Your task to perform on an android device: Go to calendar. Show me events next week Image 0: 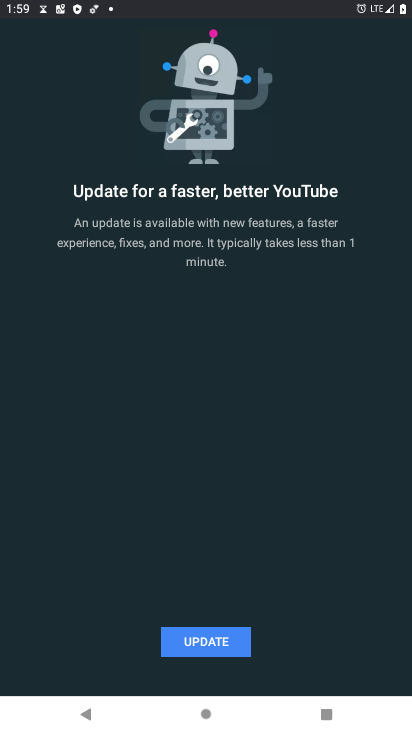
Step 0: press home button
Your task to perform on an android device: Go to calendar. Show me events next week Image 1: 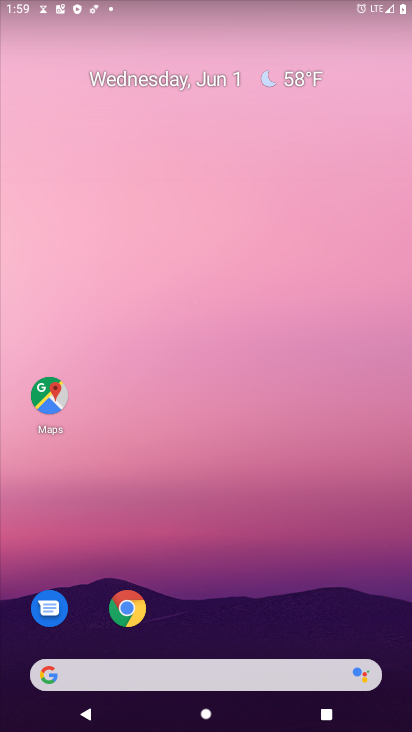
Step 1: drag from (199, 613) to (266, 242)
Your task to perform on an android device: Go to calendar. Show me events next week Image 2: 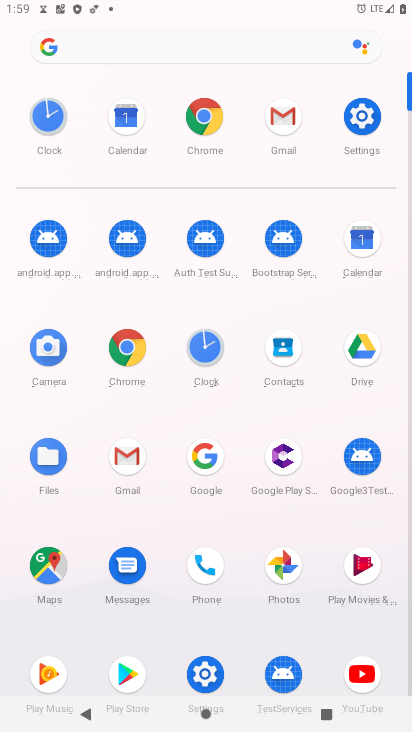
Step 2: click (375, 235)
Your task to perform on an android device: Go to calendar. Show me events next week Image 3: 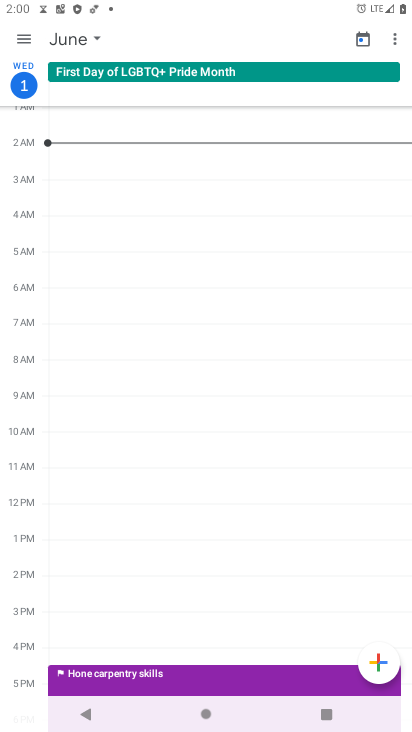
Step 3: drag from (231, 438) to (288, 116)
Your task to perform on an android device: Go to calendar. Show me events next week Image 4: 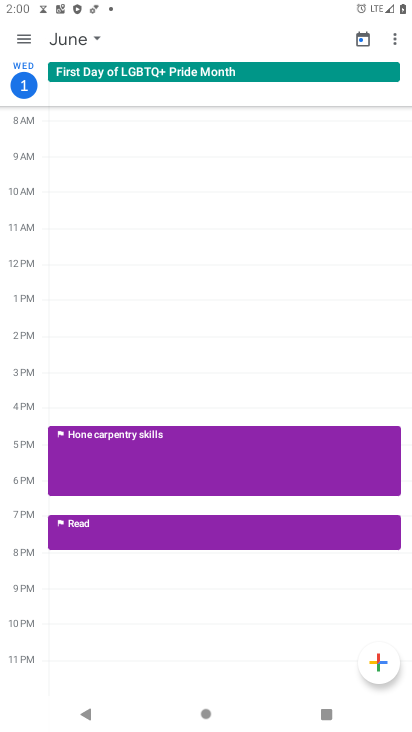
Step 4: drag from (185, 399) to (243, 128)
Your task to perform on an android device: Go to calendar. Show me events next week Image 5: 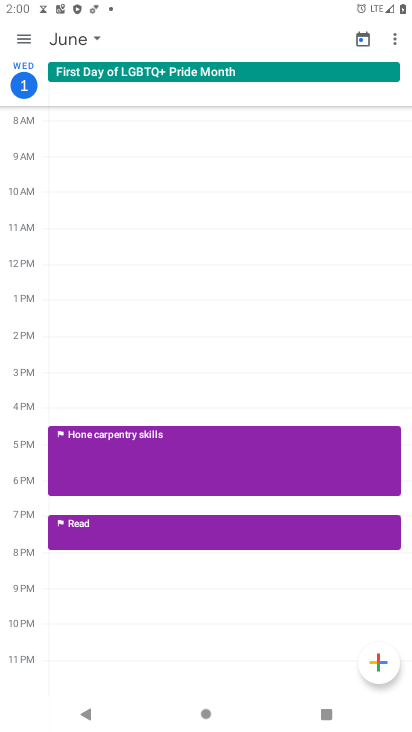
Step 5: click (21, 33)
Your task to perform on an android device: Go to calendar. Show me events next week Image 6: 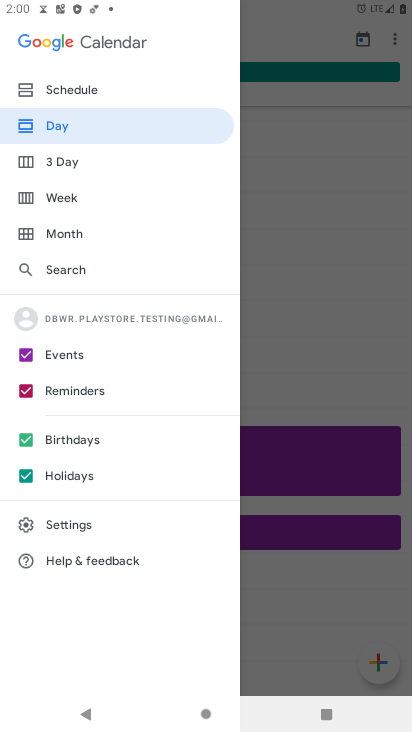
Step 6: click (84, 221)
Your task to perform on an android device: Go to calendar. Show me events next week Image 7: 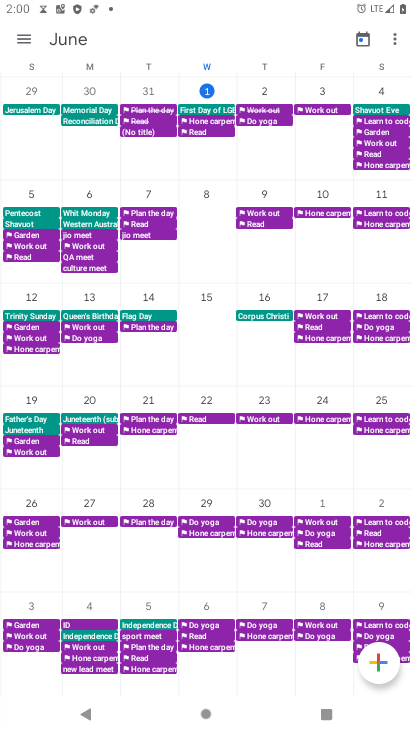
Step 7: click (32, 209)
Your task to perform on an android device: Go to calendar. Show me events next week Image 8: 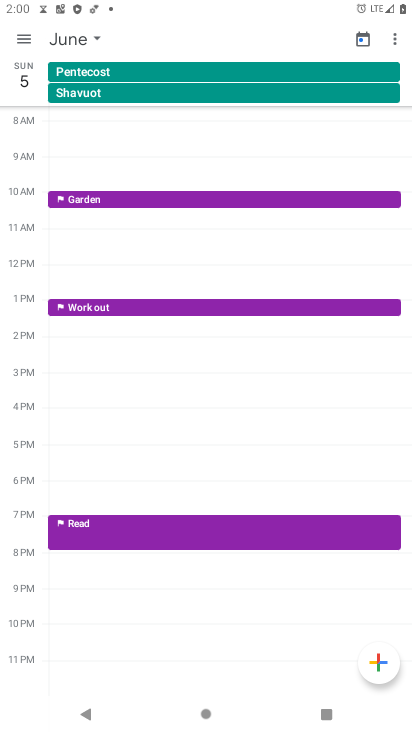
Step 8: drag from (135, 563) to (189, 240)
Your task to perform on an android device: Go to calendar. Show me events next week Image 9: 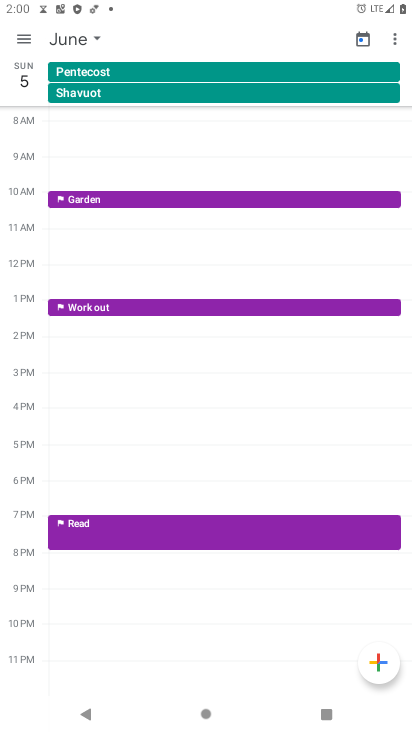
Step 9: click (36, 34)
Your task to perform on an android device: Go to calendar. Show me events next week Image 10: 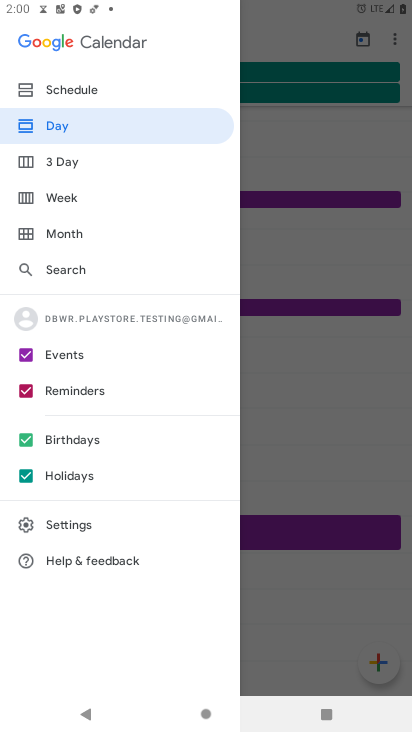
Step 10: click (62, 241)
Your task to perform on an android device: Go to calendar. Show me events next week Image 11: 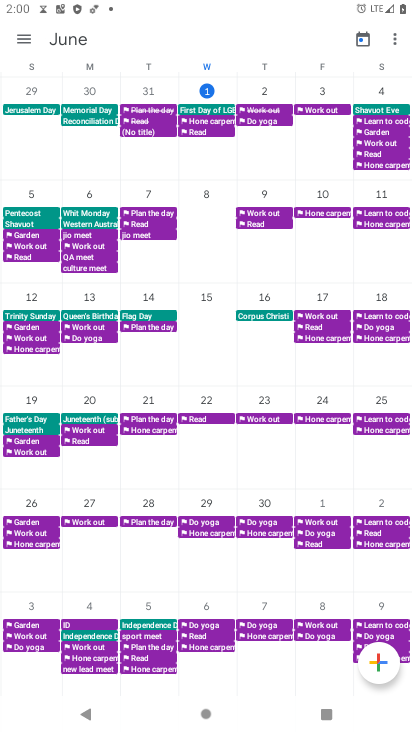
Step 11: drag from (80, 283) to (102, 87)
Your task to perform on an android device: Go to calendar. Show me events next week Image 12: 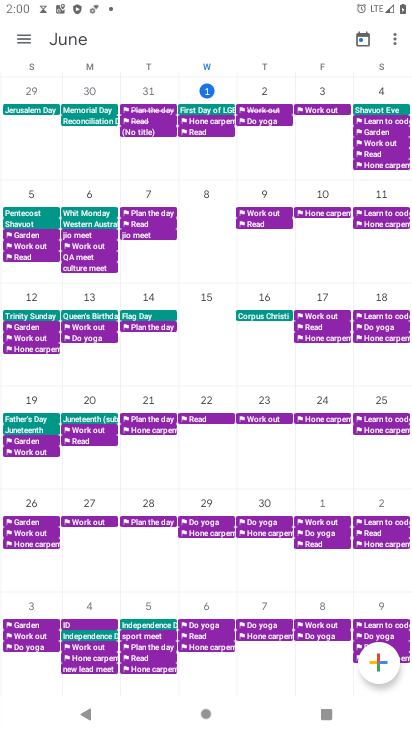
Step 12: click (30, 32)
Your task to perform on an android device: Go to calendar. Show me events next week Image 13: 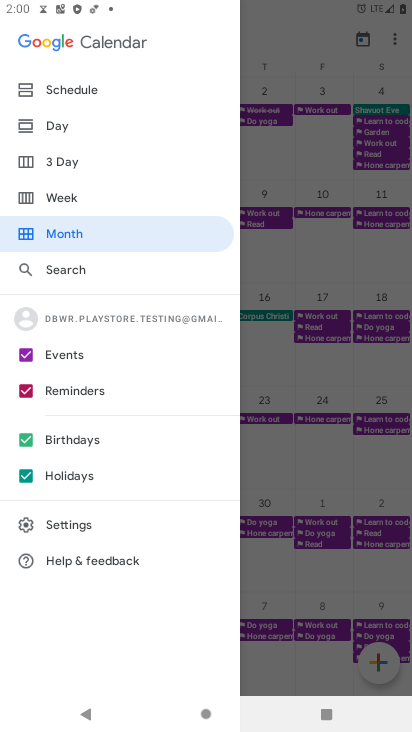
Step 13: click (48, 187)
Your task to perform on an android device: Go to calendar. Show me events next week Image 14: 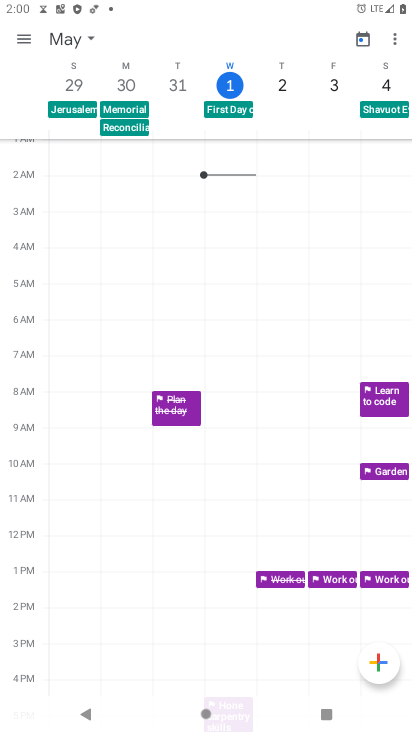
Step 14: task complete